Your task to perform on an android device: Search for seafood restaurants on Google Maps Image 0: 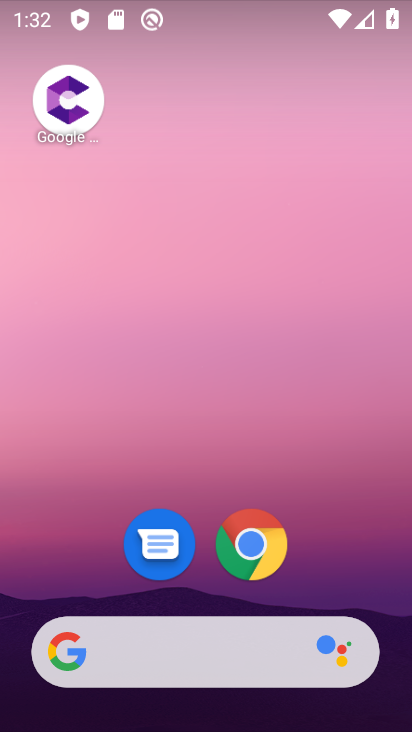
Step 0: drag from (337, 480) to (385, 5)
Your task to perform on an android device: Search for seafood restaurants on Google Maps Image 1: 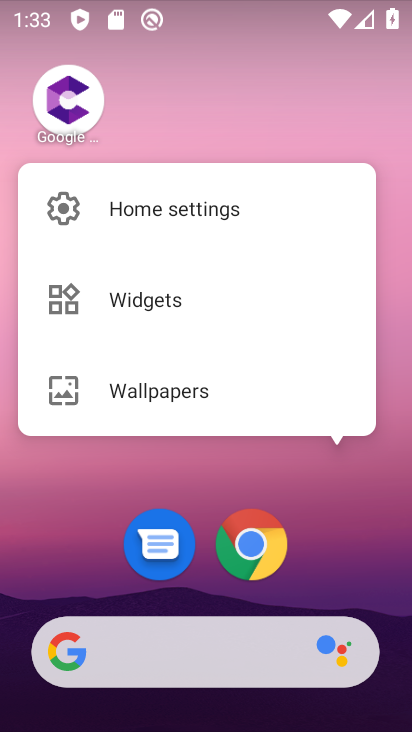
Step 1: click (342, 520)
Your task to perform on an android device: Search for seafood restaurants on Google Maps Image 2: 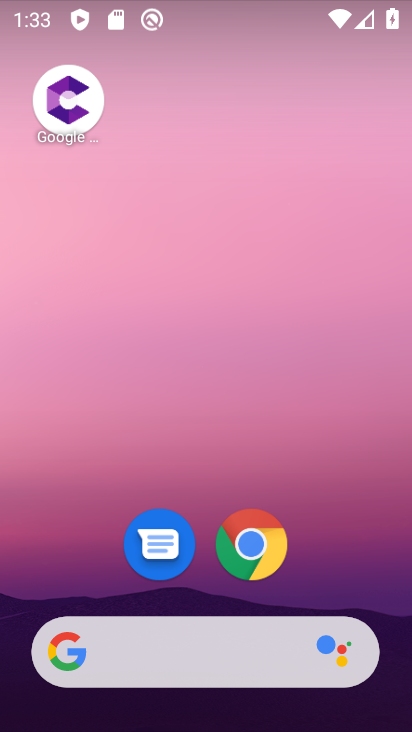
Step 2: drag from (316, 495) to (328, 25)
Your task to perform on an android device: Search for seafood restaurants on Google Maps Image 3: 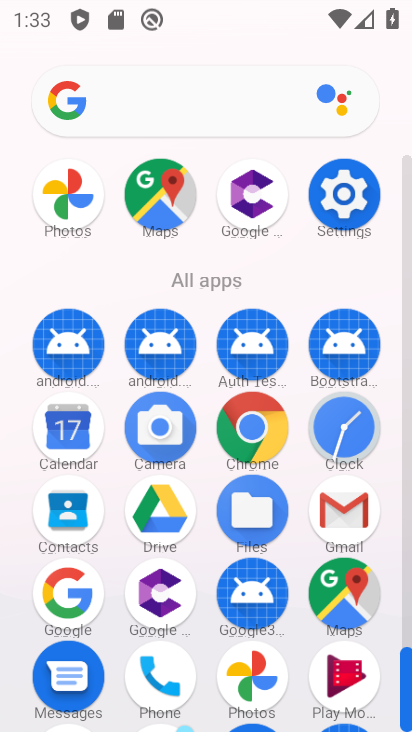
Step 3: click (165, 183)
Your task to perform on an android device: Search for seafood restaurants on Google Maps Image 4: 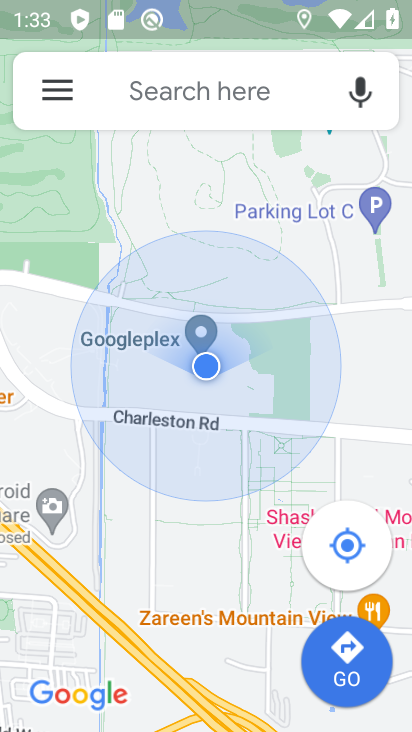
Step 4: click (46, 84)
Your task to perform on an android device: Search for seafood restaurants on Google Maps Image 5: 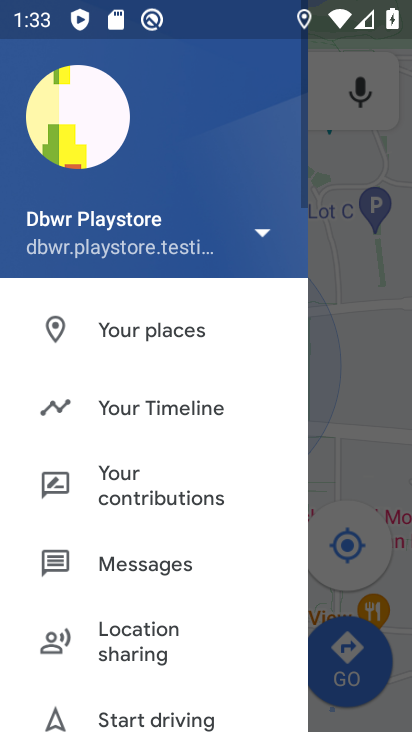
Step 5: click (336, 195)
Your task to perform on an android device: Search for seafood restaurants on Google Maps Image 6: 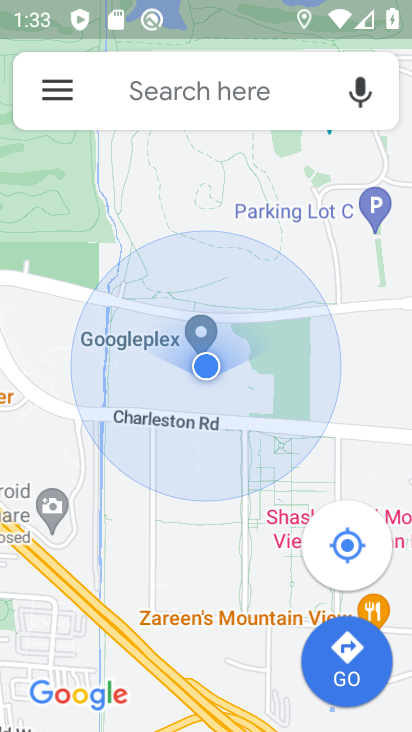
Step 6: click (277, 87)
Your task to perform on an android device: Search for seafood restaurants on Google Maps Image 7: 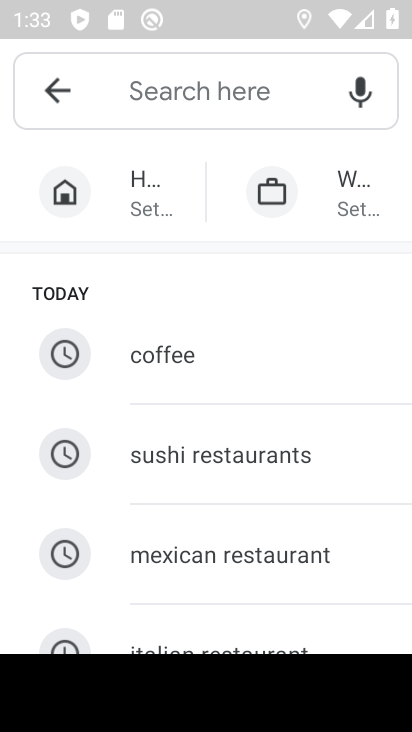
Step 7: type "seafood restaurants"
Your task to perform on an android device: Search for seafood restaurants on Google Maps Image 8: 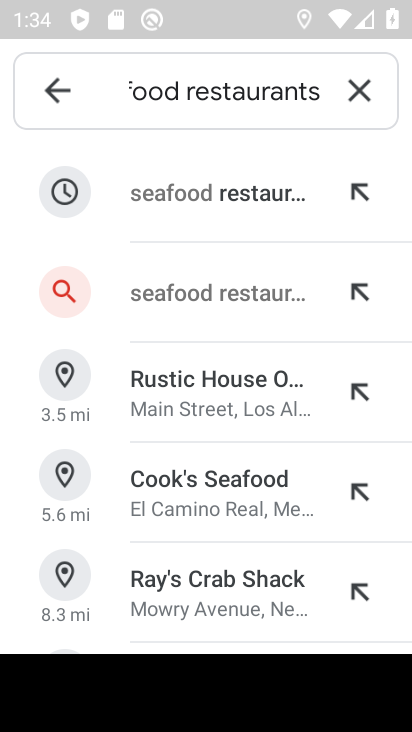
Step 8: press enter
Your task to perform on an android device: Search for seafood restaurants on Google Maps Image 9: 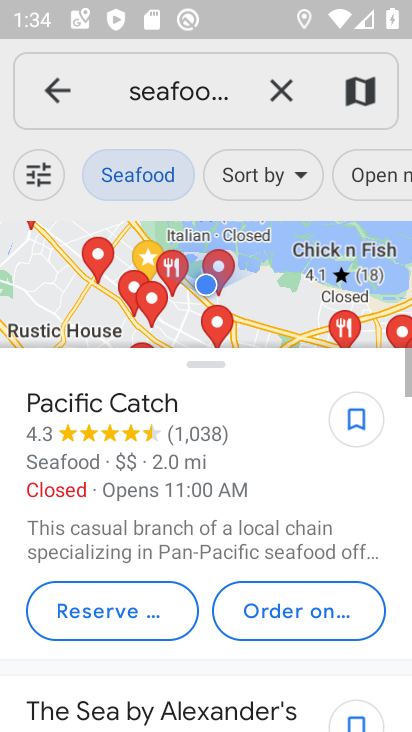
Step 9: task complete